Your task to perform on an android device: check out phone information Image 0: 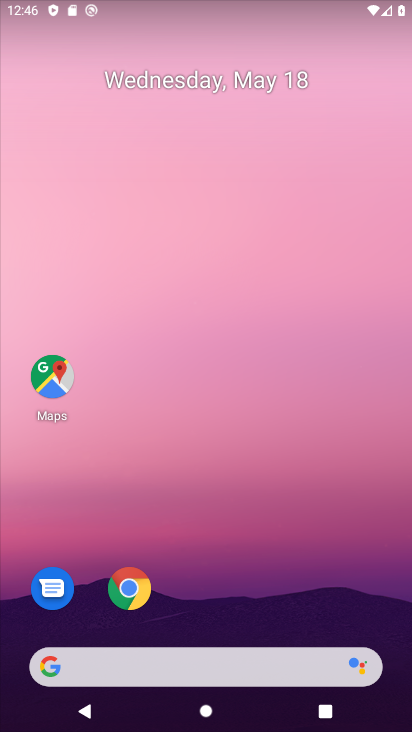
Step 0: drag from (351, 568) to (344, 115)
Your task to perform on an android device: check out phone information Image 1: 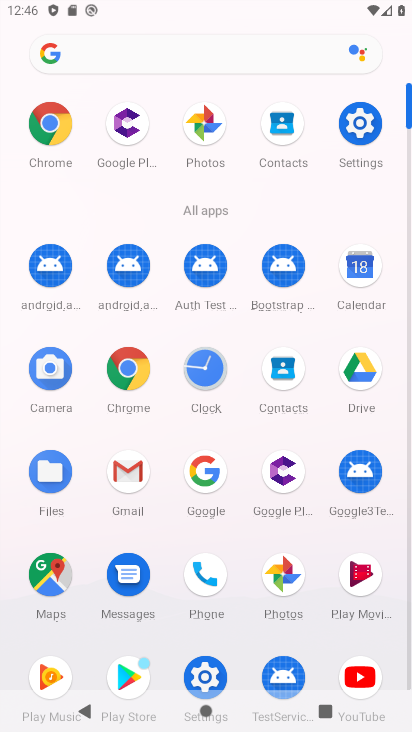
Step 1: click (212, 577)
Your task to perform on an android device: check out phone information Image 2: 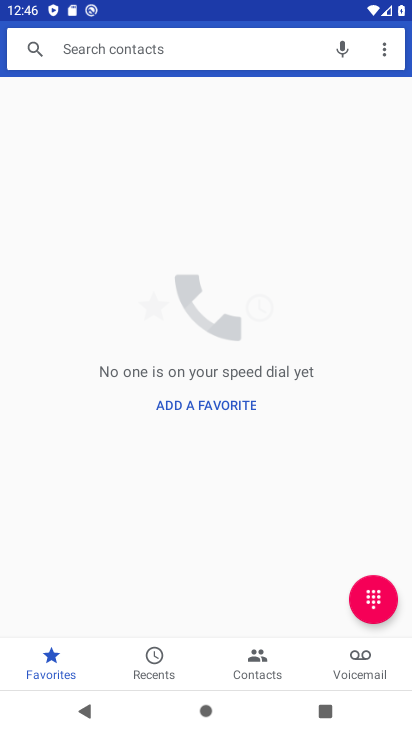
Step 2: click (159, 674)
Your task to perform on an android device: check out phone information Image 3: 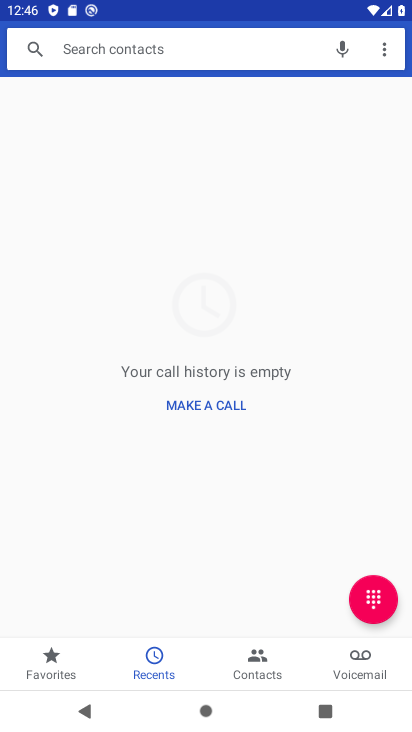
Step 3: task complete